Your task to perform on an android device: Open Maps and search for coffee Image 0: 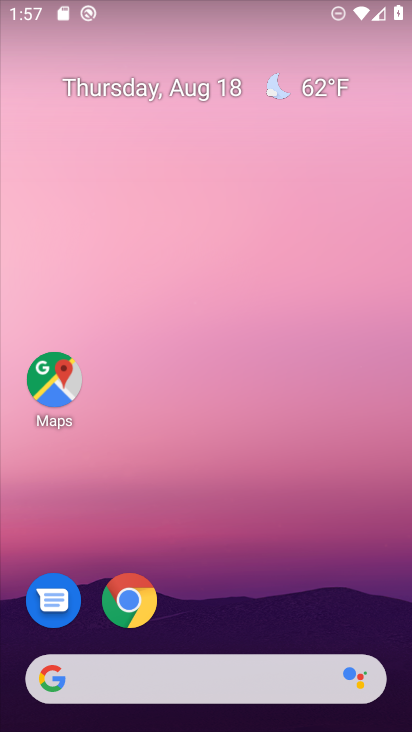
Step 0: click (40, 378)
Your task to perform on an android device: Open Maps and search for coffee Image 1: 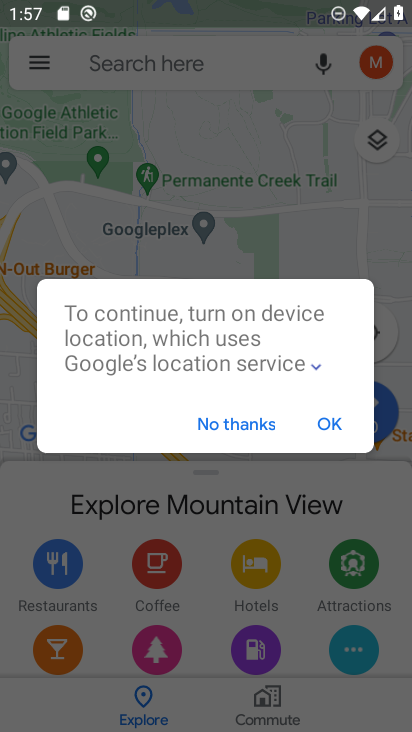
Step 1: click (328, 418)
Your task to perform on an android device: Open Maps and search for coffee Image 2: 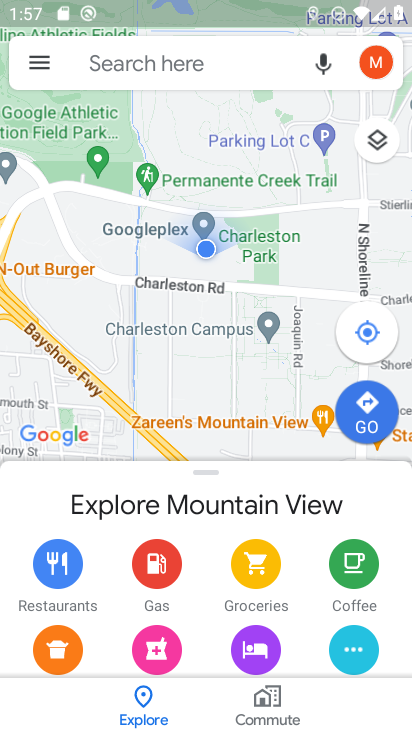
Step 2: click (194, 64)
Your task to perform on an android device: Open Maps and search for coffee Image 3: 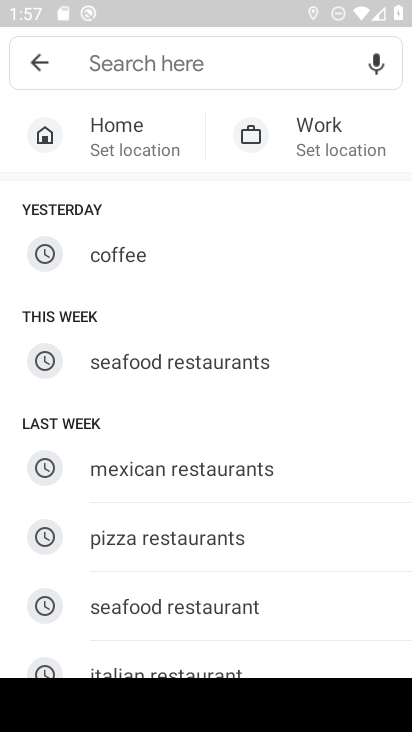
Step 3: click (106, 253)
Your task to perform on an android device: Open Maps and search for coffee Image 4: 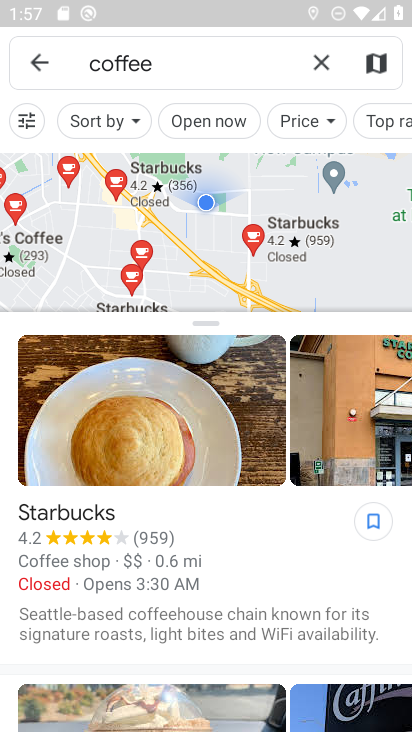
Step 4: task complete